Your task to perform on an android device: Turn on the flashlight Image 0: 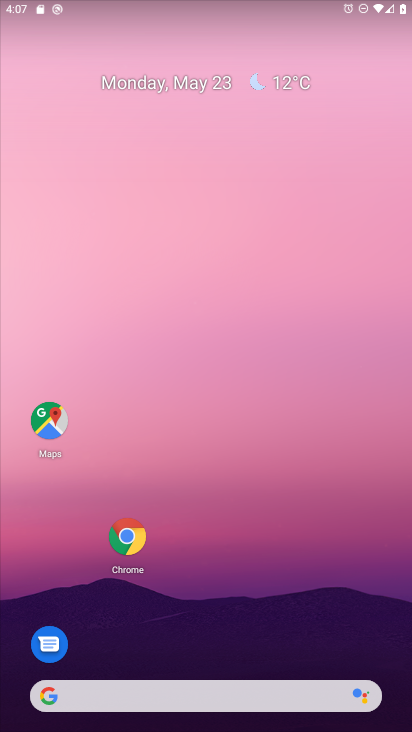
Step 0: drag from (272, 608) to (301, 181)
Your task to perform on an android device: Turn on the flashlight Image 1: 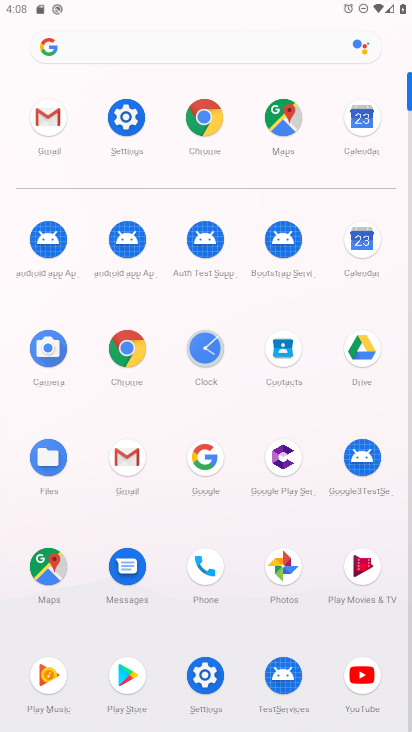
Step 1: click (131, 115)
Your task to perform on an android device: Turn on the flashlight Image 2: 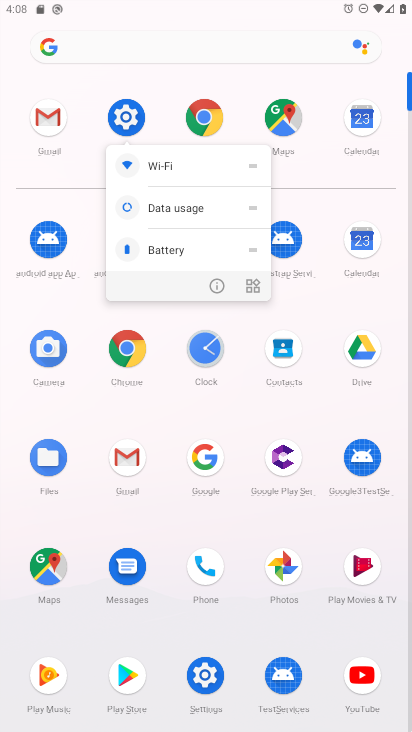
Step 2: click (122, 121)
Your task to perform on an android device: Turn on the flashlight Image 3: 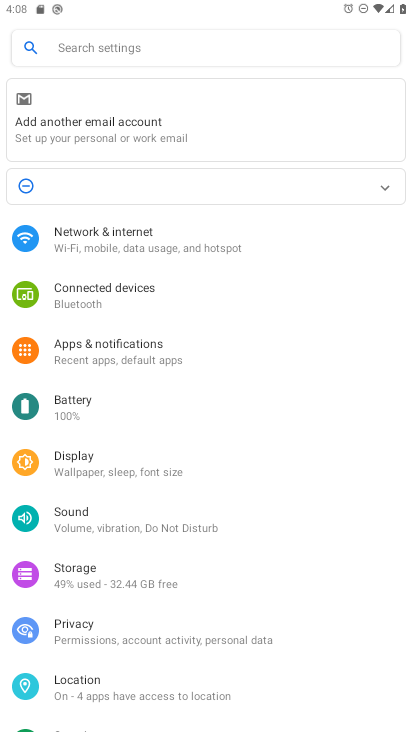
Step 3: click (86, 458)
Your task to perform on an android device: Turn on the flashlight Image 4: 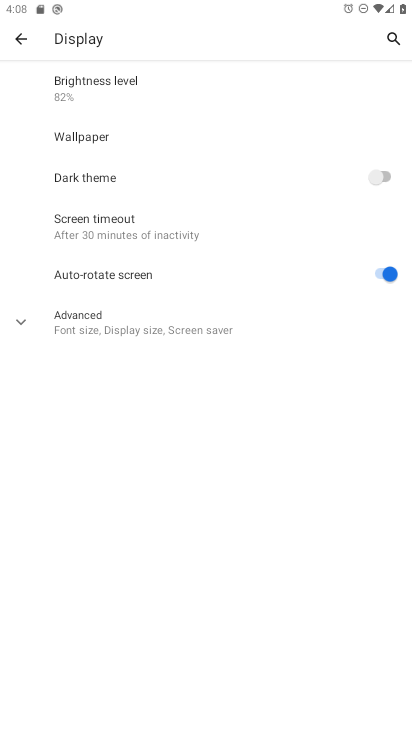
Step 4: task complete